Your task to perform on an android device: see creations saved in the google photos Image 0: 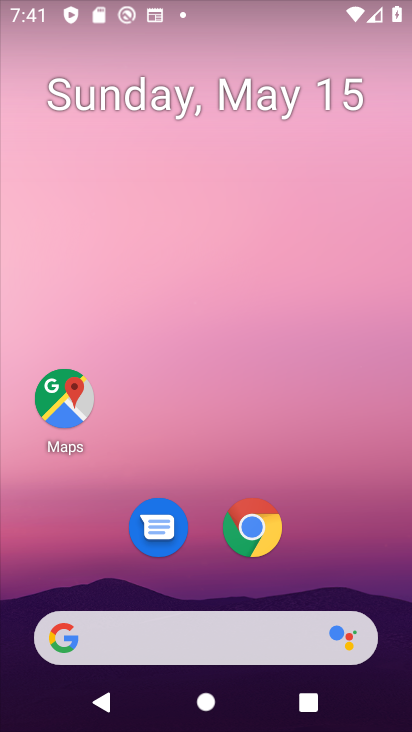
Step 0: drag from (219, 459) to (321, 179)
Your task to perform on an android device: see creations saved in the google photos Image 1: 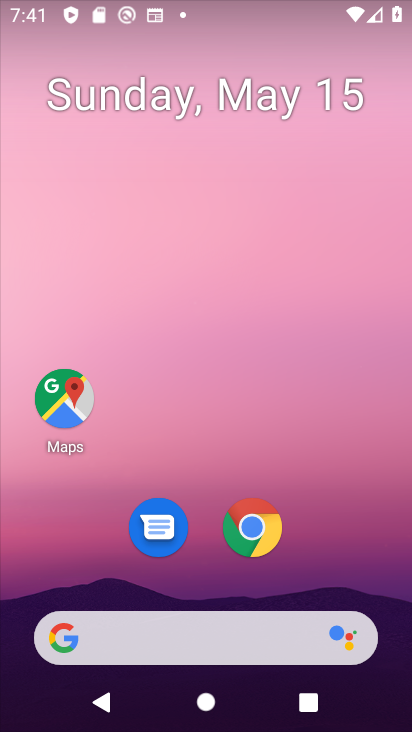
Step 1: drag from (245, 628) to (393, 141)
Your task to perform on an android device: see creations saved in the google photos Image 2: 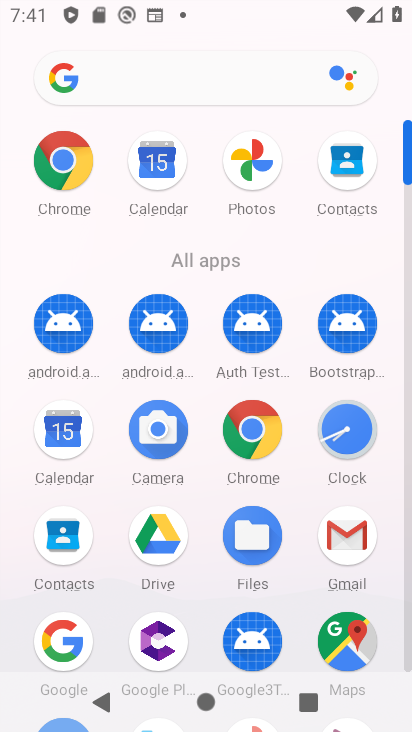
Step 2: drag from (173, 612) to (289, 381)
Your task to perform on an android device: see creations saved in the google photos Image 3: 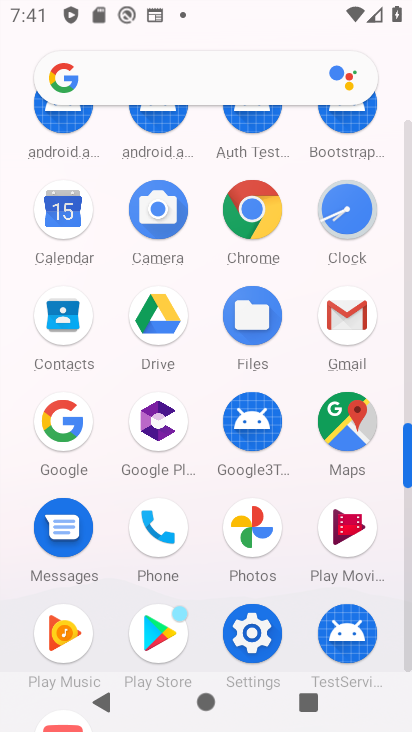
Step 3: click (250, 521)
Your task to perform on an android device: see creations saved in the google photos Image 4: 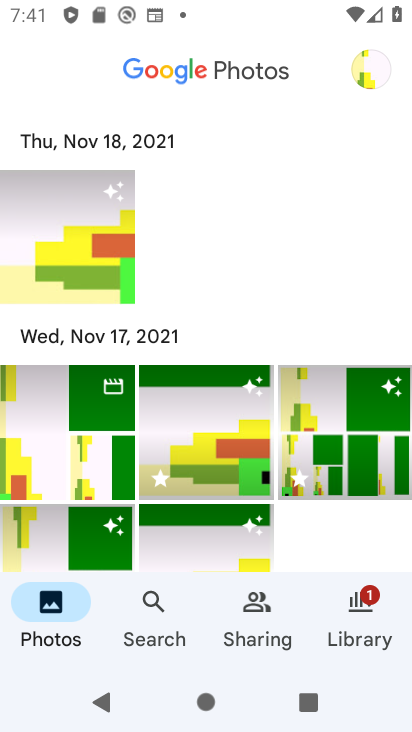
Step 4: click (145, 602)
Your task to perform on an android device: see creations saved in the google photos Image 5: 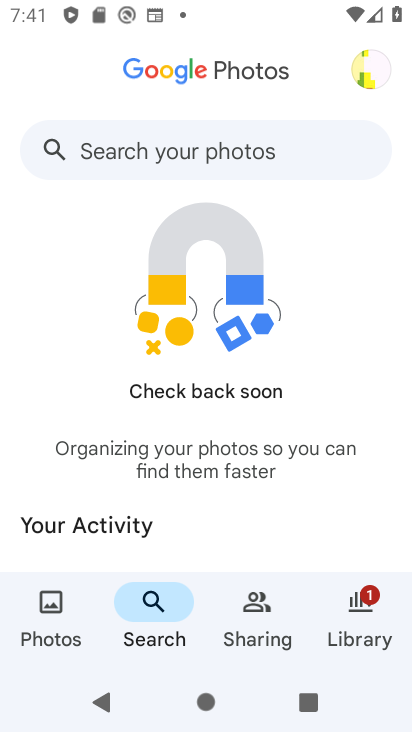
Step 5: drag from (181, 546) to (354, 77)
Your task to perform on an android device: see creations saved in the google photos Image 6: 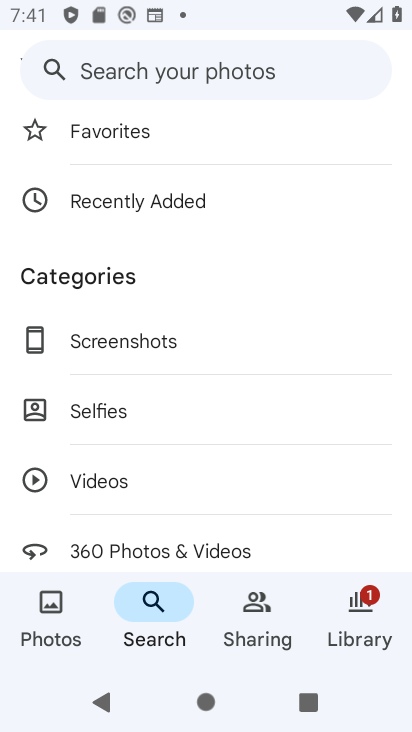
Step 6: drag from (178, 490) to (314, 111)
Your task to perform on an android device: see creations saved in the google photos Image 7: 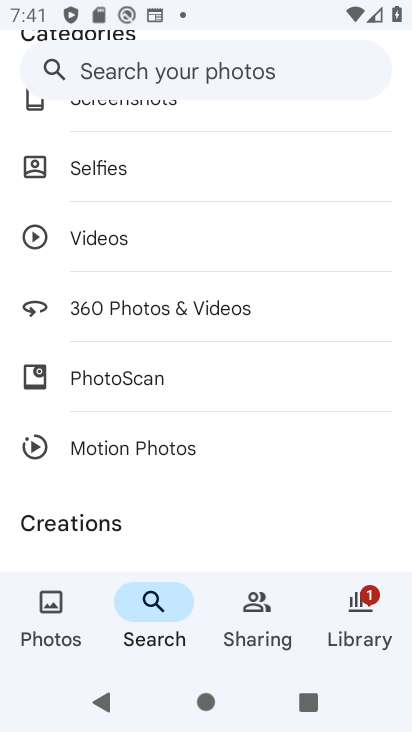
Step 7: drag from (199, 498) to (345, 112)
Your task to perform on an android device: see creations saved in the google photos Image 8: 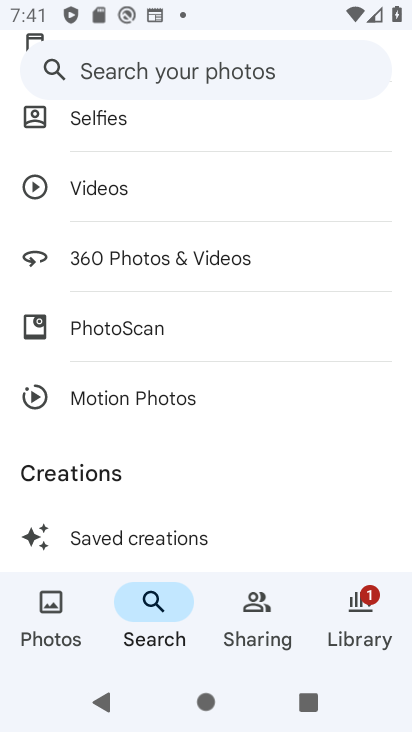
Step 8: click (158, 535)
Your task to perform on an android device: see creations saved in the google photos Image 9: 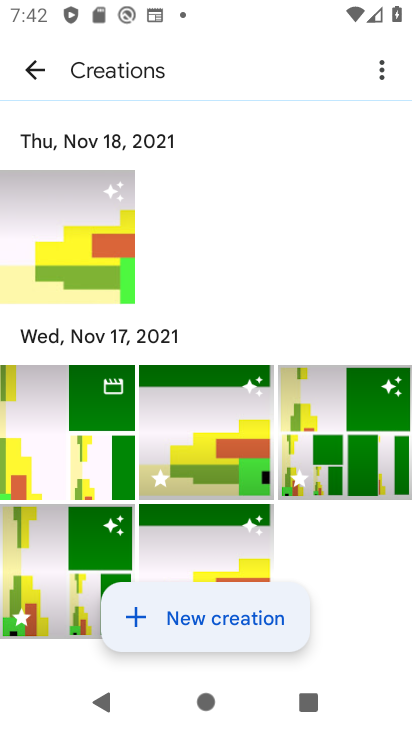
Step 9: task complete